Your task to perform on an android device: turn off wifi Image 0: 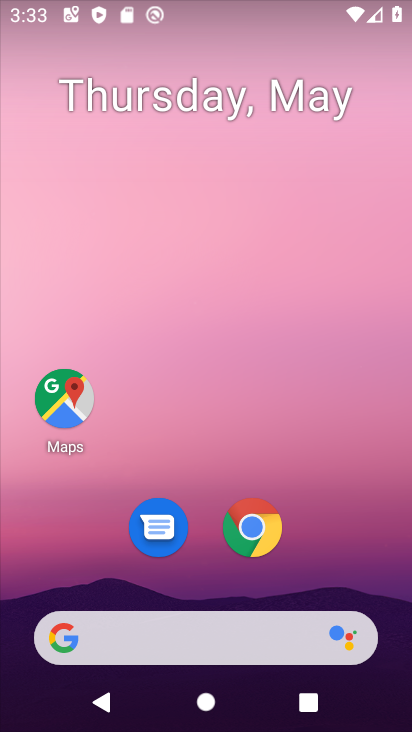
Step 0: drag from (383, 597) to (313, 289)
Your task to perform on an android device: turn off wifi Image 1: 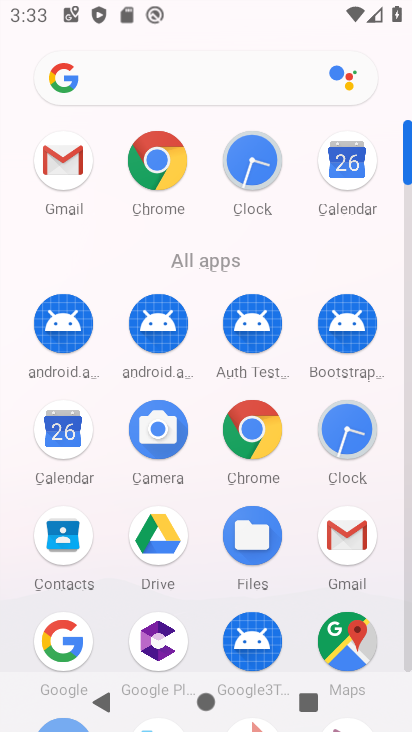
Step 1: click (409, 659)
Your task to perform on an android device: turn off wifi Image 2: 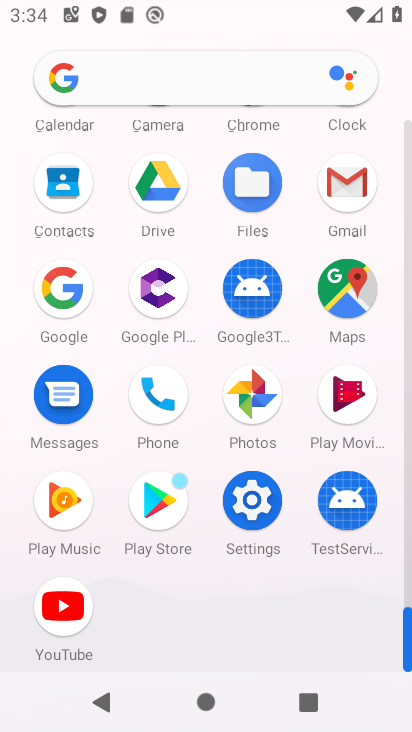
Step 2: click (254, 500)
Your task to perform on an android device: turn off wifi Image 3: 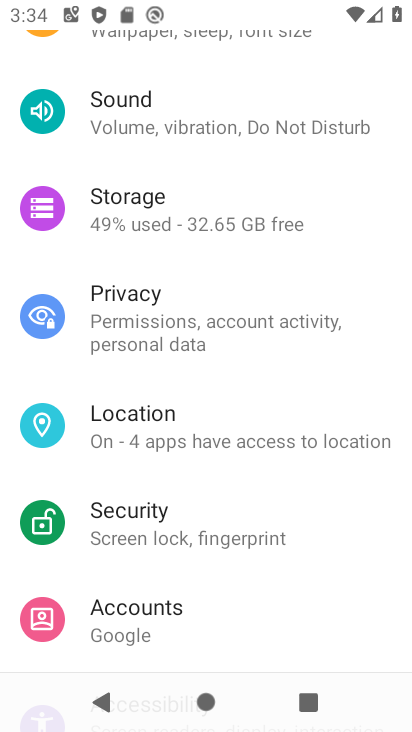
Step 3: drag from (305, 129) to (328, 527)
Your task to perform on an android device: turn off wifi Image 4: 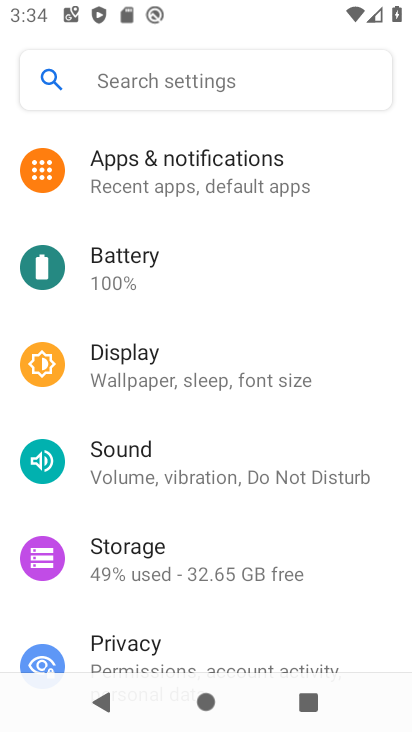
Step 4: drag from (345, 224) to (335, 525)
Your task to perform on an android device: turn off wifi Image 5: 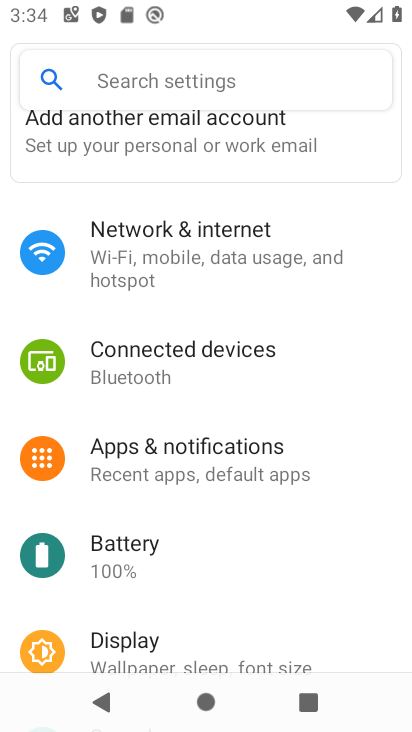
Step 5: click (119, 238)
Your task to perform on an android device: turn off wifi Image 6: 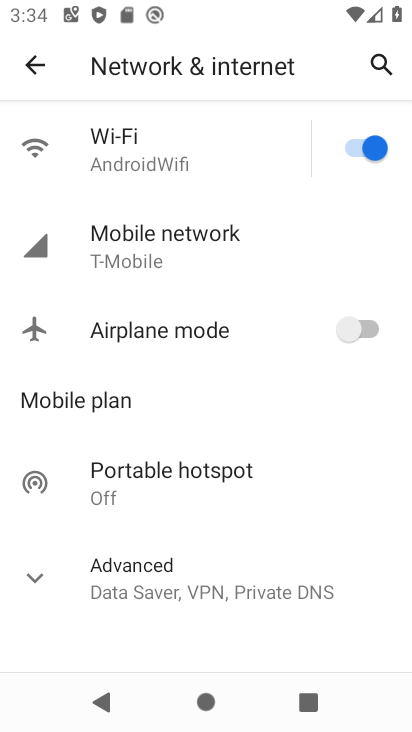
Step 6: click (351, 151)
Your task to perform on an android device: turn off wifi Image 7: 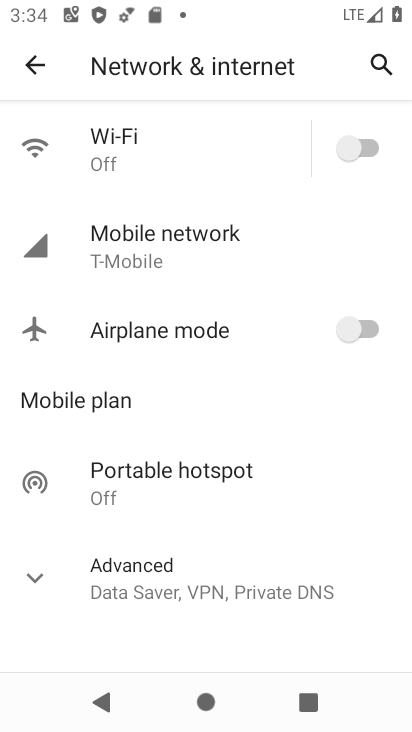
Step 7: task complete